Your task to perform on an android device: empty trash in the gmail app Image 0: 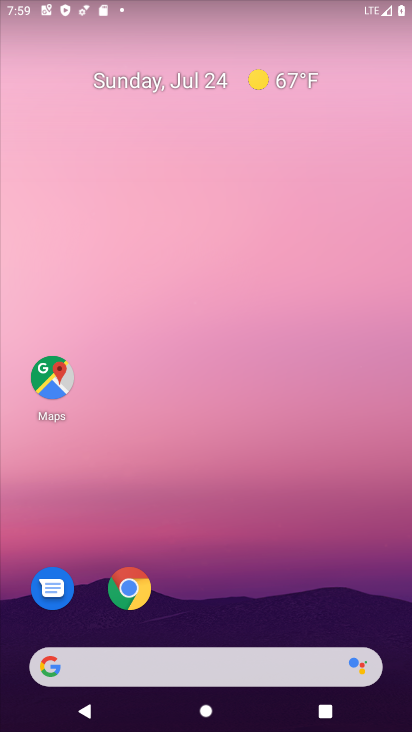
Step 0: drag from (281, 658) to (270, 254)
Your task to perform on an android device: empty trash in the gmail app Image 1: 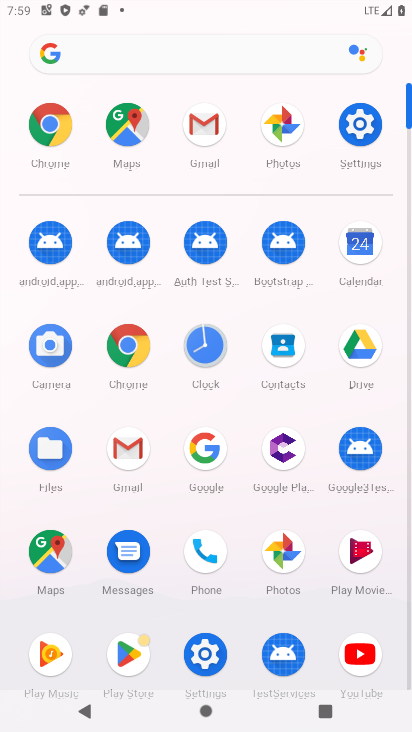
Step 1: click (194, 129)
Your task to perform on an android device: empty trash in the gmail app Image 2: 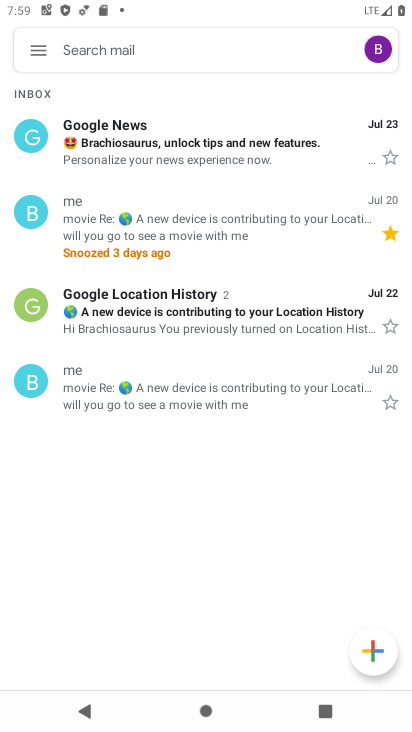
Step 2: click (44, 51)
Your task to perform on an android device: empty trash in the gmail app Image 3: 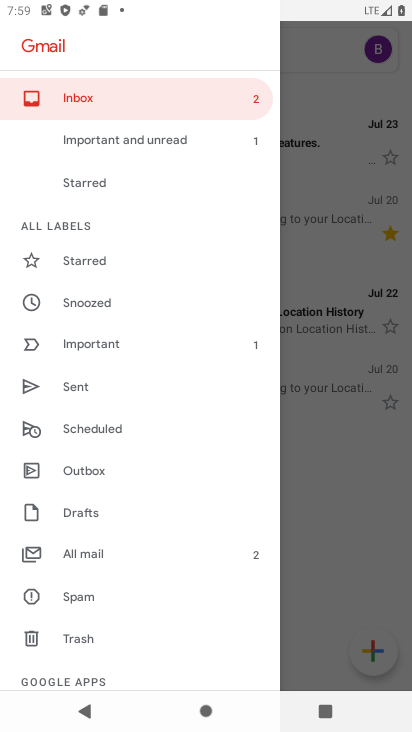
Step 3: click (89, 632)
Your task to perform on an android device: empty trash in the gmail app Image 4: 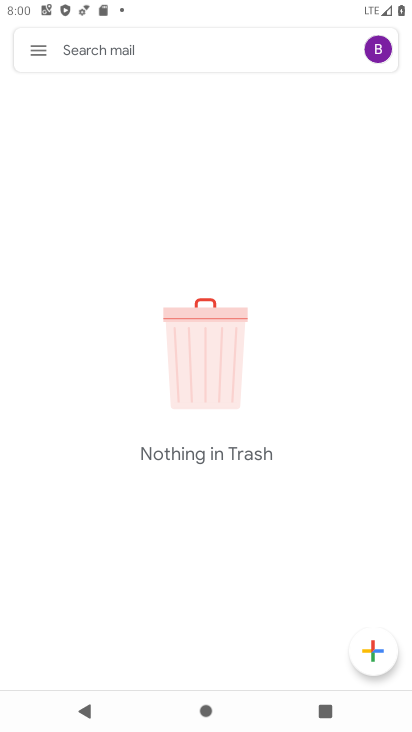
Step 4: task complete